Your task to perform on an android device: check the backup settings in the google photos Image 0: 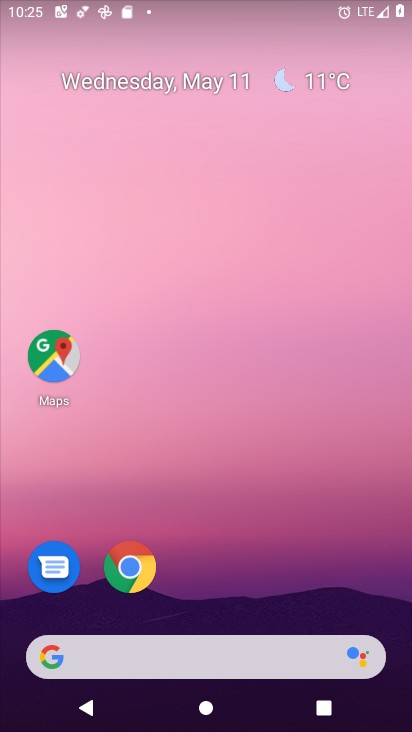
Step 0: drag from (226, 558) to (193, 88)
Your task to perform on an android device: check the backup settings in the google photos Image 1: 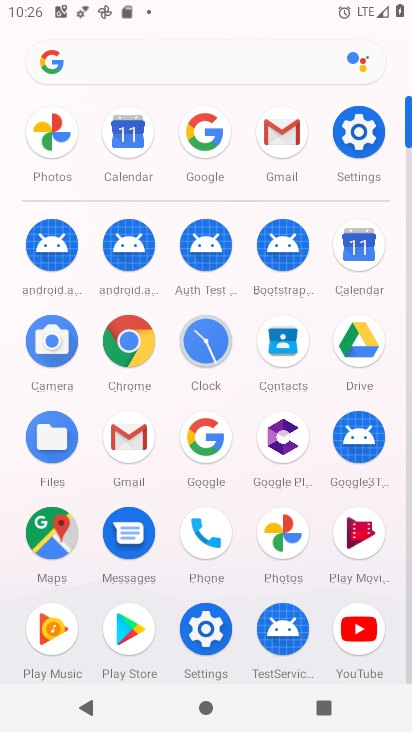
Step 1: click (53, 137)
Your task to perform on an android device: check the backup settings in the google photos Image 2: 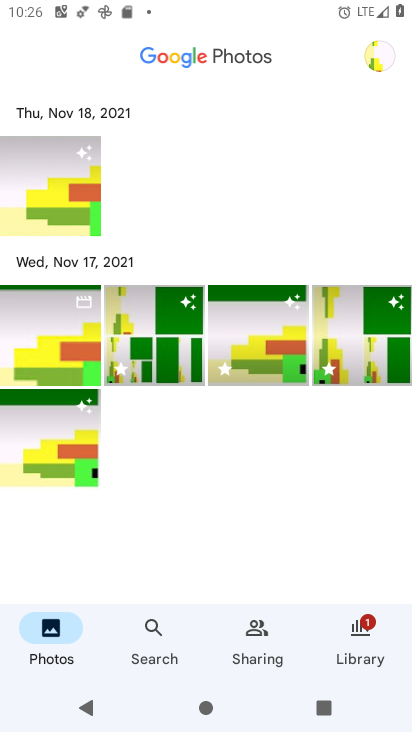
Step 2: click (374, 58)
Your task to perform on an android device: check the backup settings in the google photos Image 3: 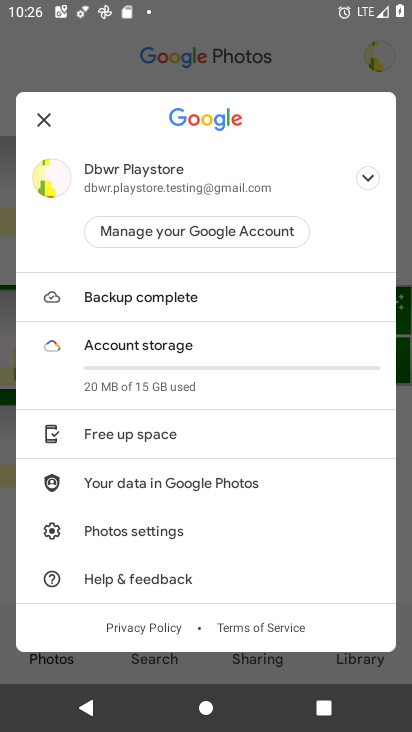
Step 3: click (180, 529)
Your task to perform on an android device: check the backup settings in the google photos Image 4: 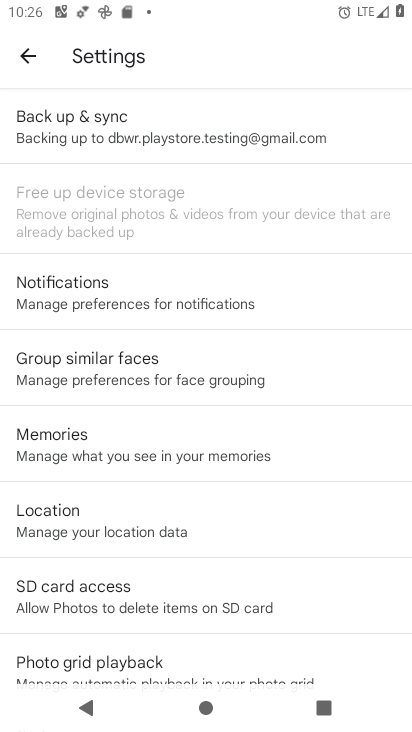
Step 4: click (126, 137)
Your task to perform on an android device: check the backup settings in the google photos Image 5: 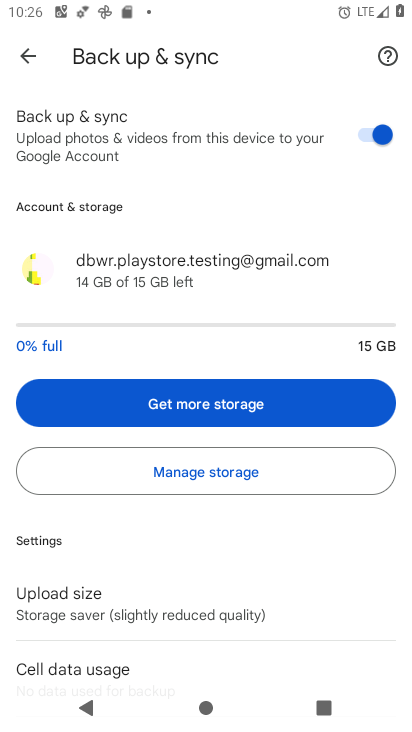
Step 5: task complete